Your task to perform on an android device: turn on airplane mode Image 0: 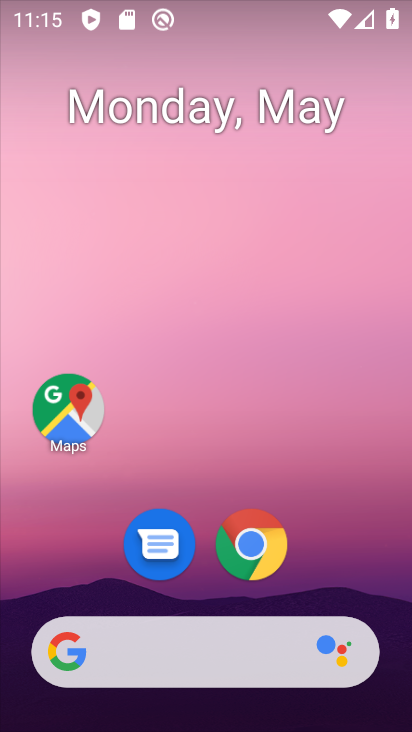
Step 0: drag from (375, 568) to (356, 121)
Your task to perform on an android device: turn on airplane mode Image 1: 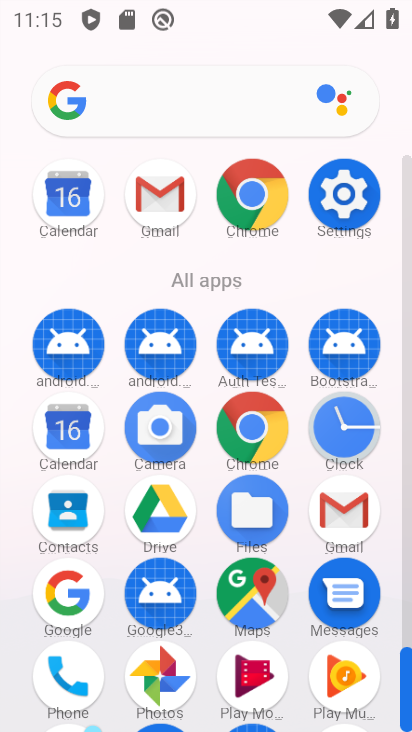
Step 1: click (363, 199)
Your task to perform on an android device: turn on airplane mode Image 2: 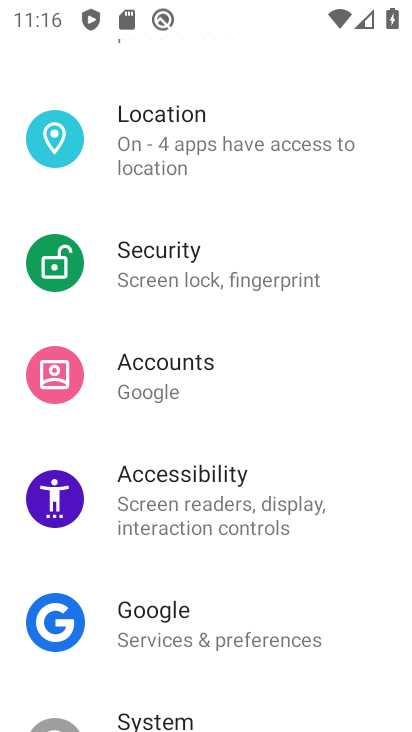
Step 2: drag from (303, 658) to (317, 210)
Your task to perform on an android device: turn on airplane mode Image 3: 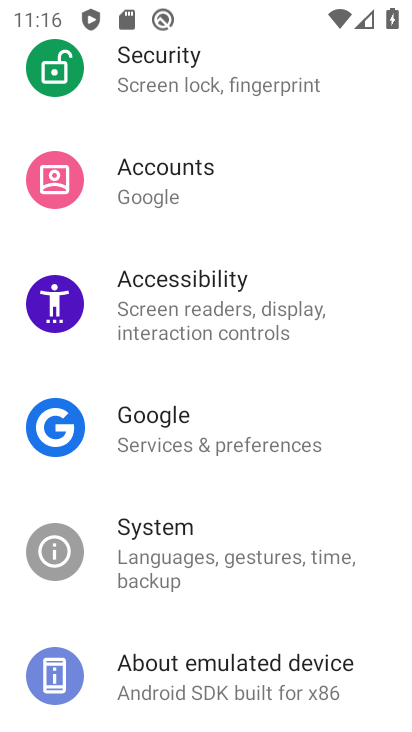
Step 3: drag from (293, 185) to (308, 676)
Your task to perform on an android device: turn on airplane mode Image 4: 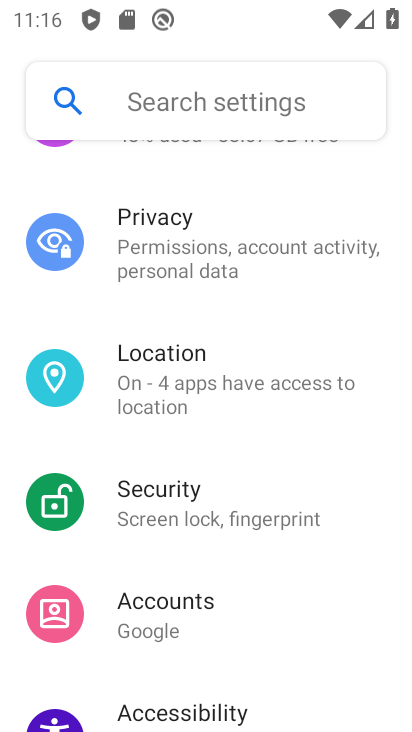
Step 4: drag from (255, 277) to (313, 701)
Your task to perform on an android device: turn on airplane mode Image 5: 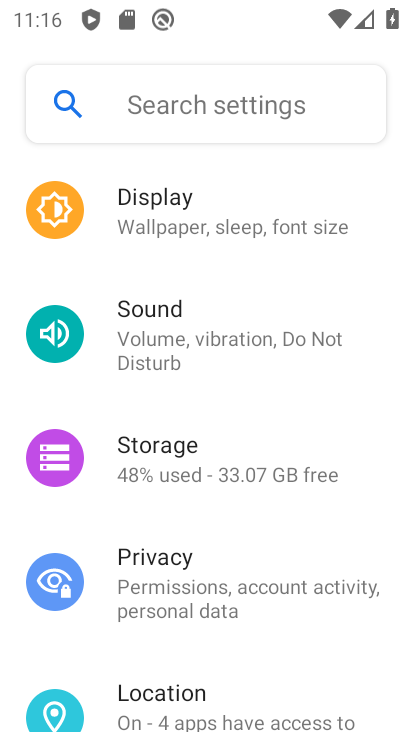
Step 5: drag from (254, 268) to (313, 658)
Your task to perform on an android device: turn on airplane mode Image 6: 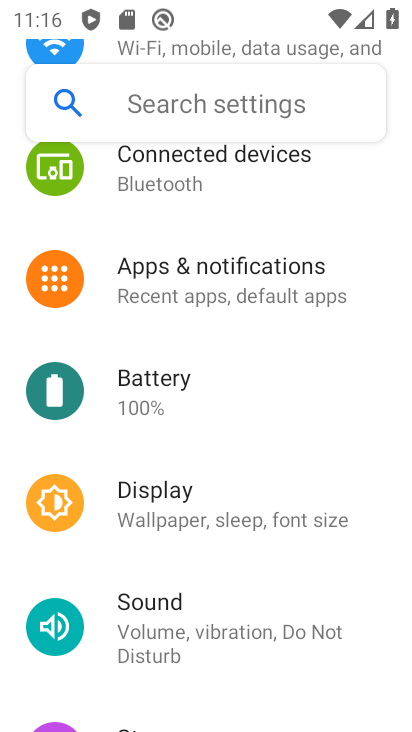
Step 6: drag from (244, 310) to (354, 719)
Your task to perform on an android device: turn on airplane mode Image 7: 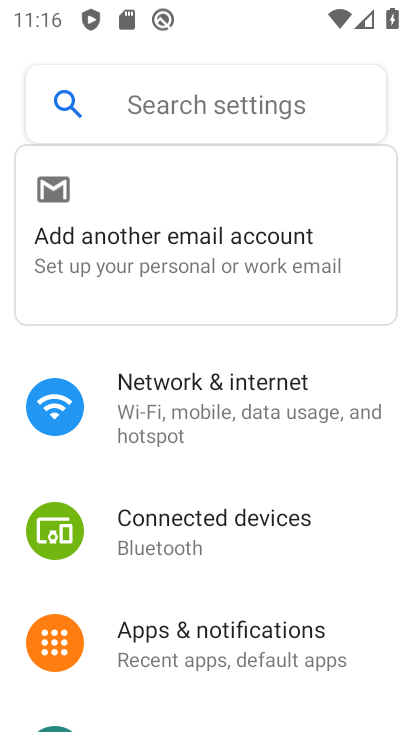
Step 7: click (252, 402)
Your task to perform on an android device: turn on airplane mode Image 8: 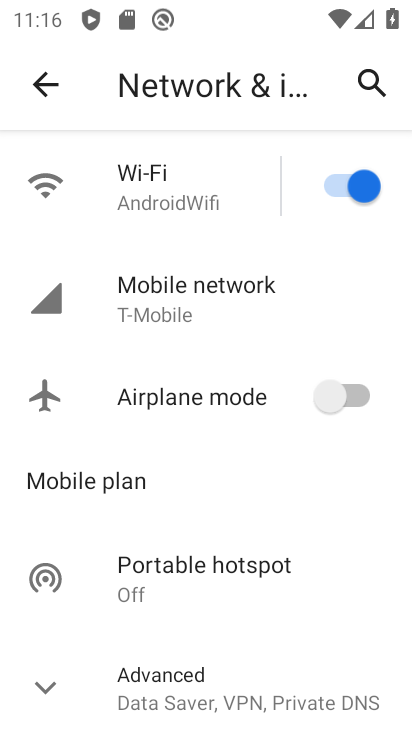
Step 8: click (354, 396)
Your task to perform on an android device: turn on airplane mode Image 9: 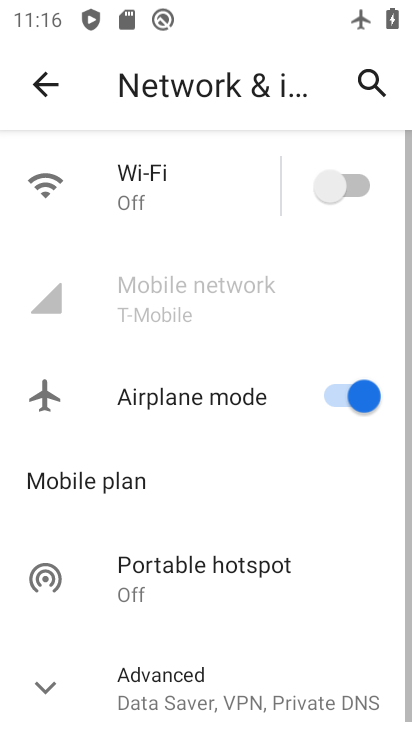
Step 9: task complete